Your task to perform on an android device: Open privacy settings Image 0: 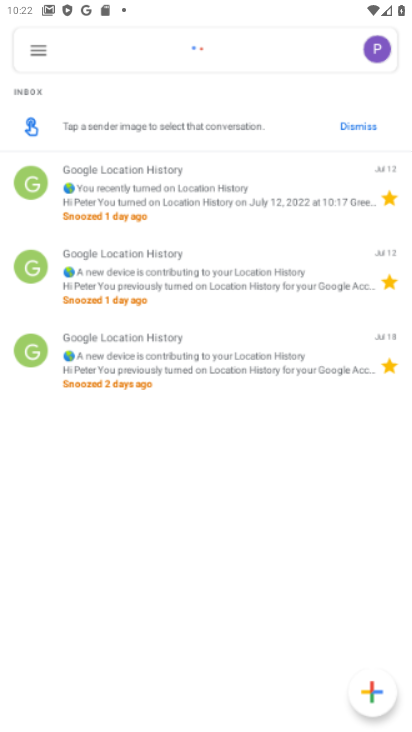
Step 0: drag from (195, 619) to (237, 91)
Your task to perform on an android device: Open privacy settings Image 1: 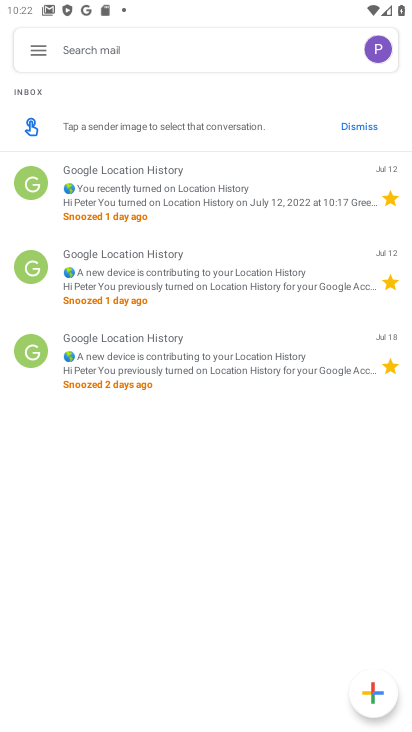
Step 1: drag from (148, 549) to (204, 284)
Your task to perform on an android device: Open privacy settings Image 2: 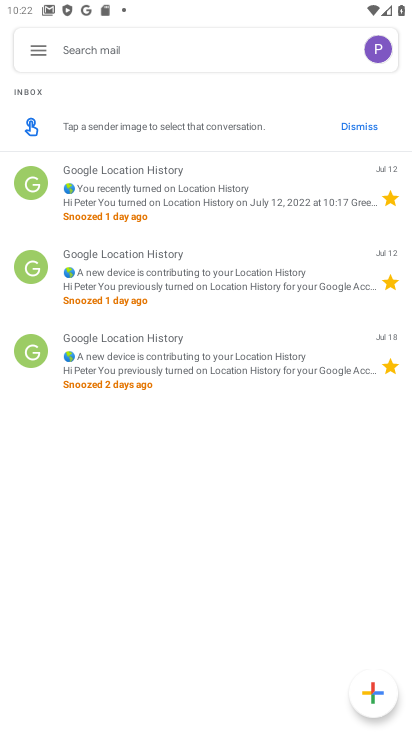
Step 2: press home button
Your task to perform on an android device: Open privacy settings Image 3: 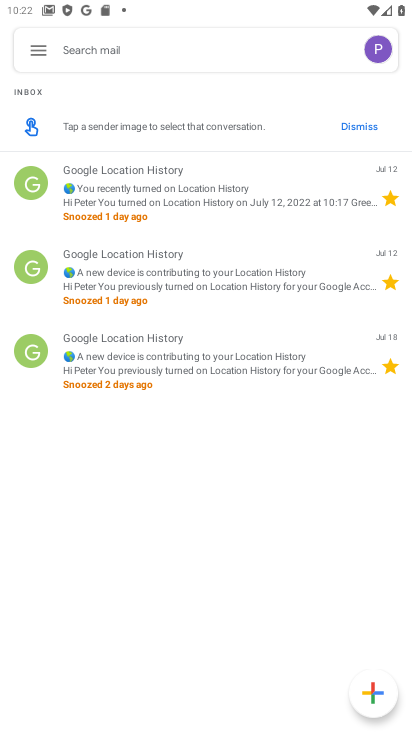
Step 3: drag from (204, 143) to (272, 49)
Your task to perform on an android device: Open privacy settings Image 4: 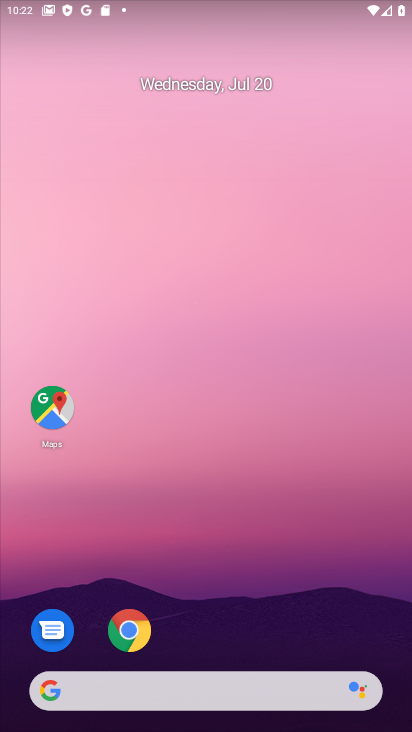
Step 4: drag from (183, 644) to (343, 14)
Your task to perform on an android device: Open privacy settings Image 5: 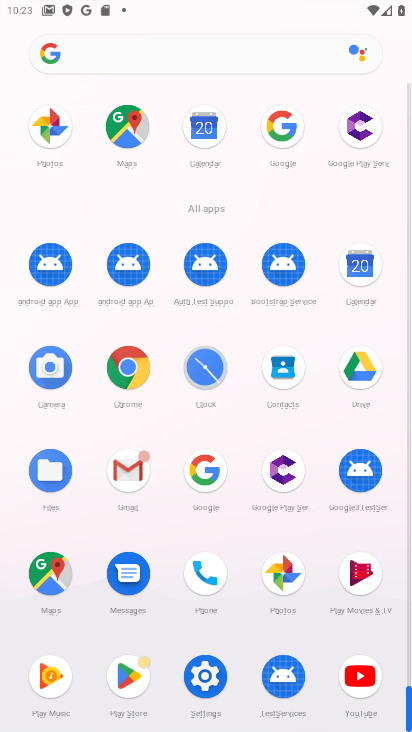
Step 5: click (206, 679)
Your task to perform on an android device: Open privacy settings Image 6: 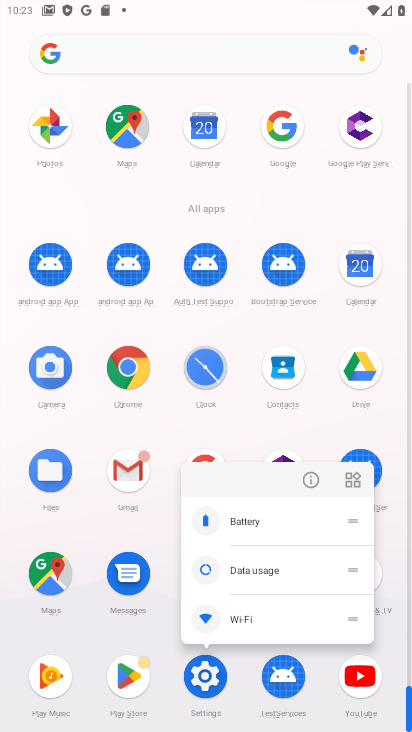
Step 6: click (300, 481)
Your task to perform on an android device: Open privacy settings Image 7: 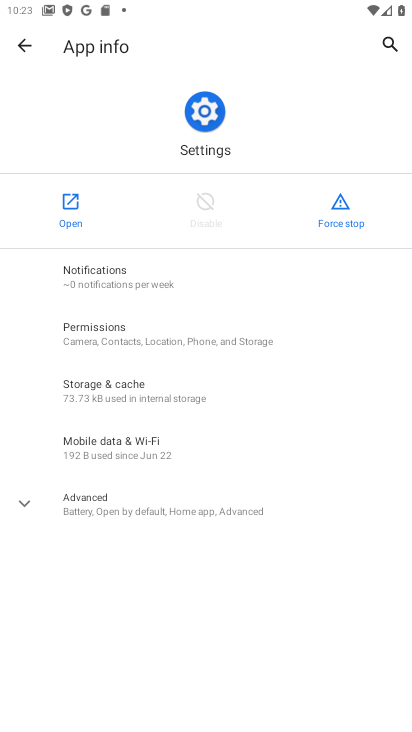
Step 7: click (71, 217)
Your task to perform on an android device: Open privacy settings Image 8: 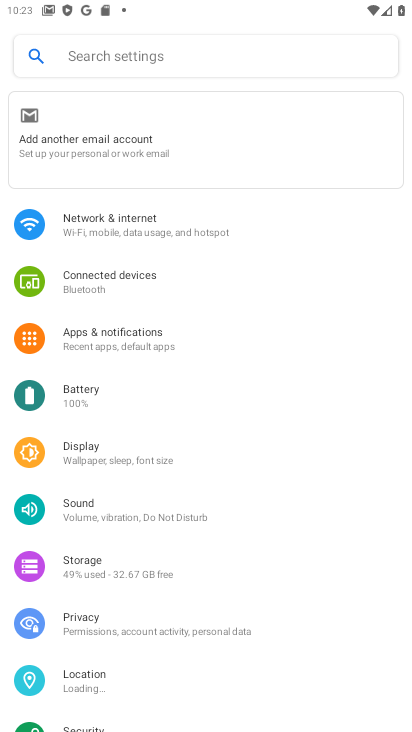
Step 8: drag from (134, 578) to (197, 175)
Your task to perform on an android device: Open privacy settings Image 9: 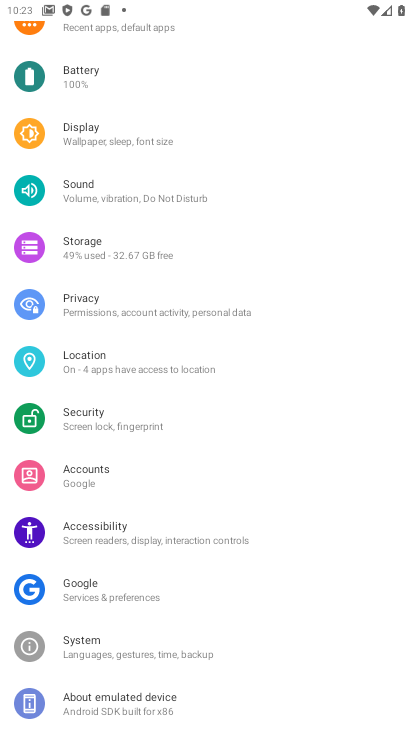
Step 9: click (111, 317)
Your task to perform on an android device: Open privacy settings Image 10: 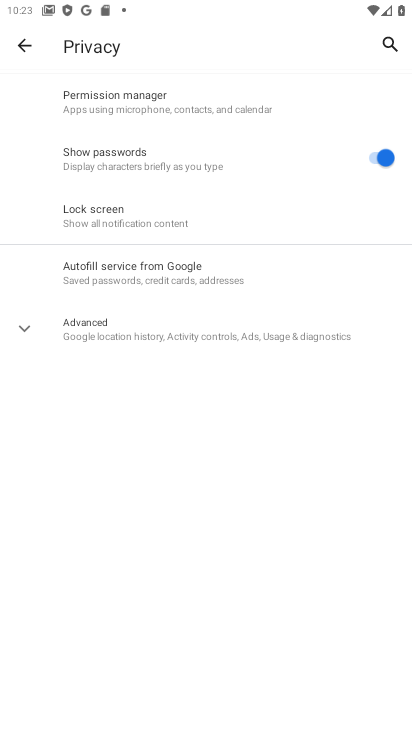
Step 10: click (139, 336)
Your task to perform on an android device: Open privacy settings Image 11: 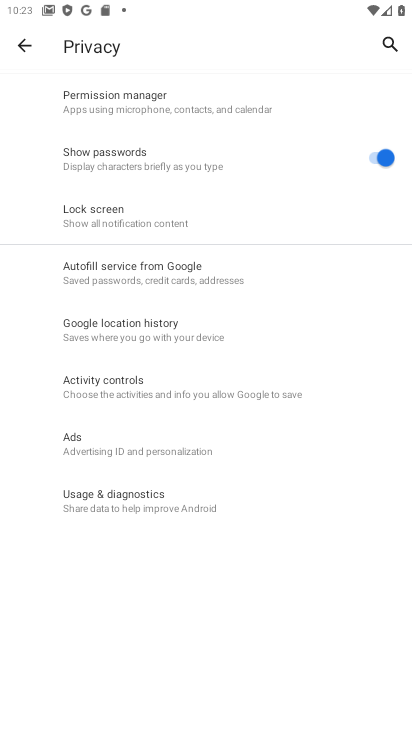
Step 11: task complete